Your task to perform on an android device: Go to ESPN.com Image 0: 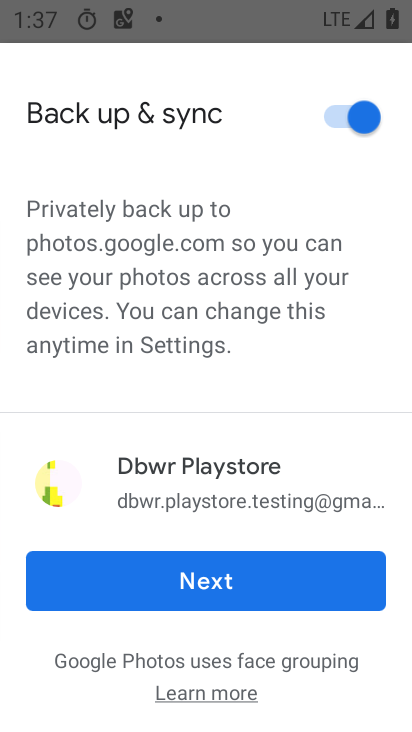
Step 0: press home button
Your task to perform on an android device: Go to ESPN.com Image 1: 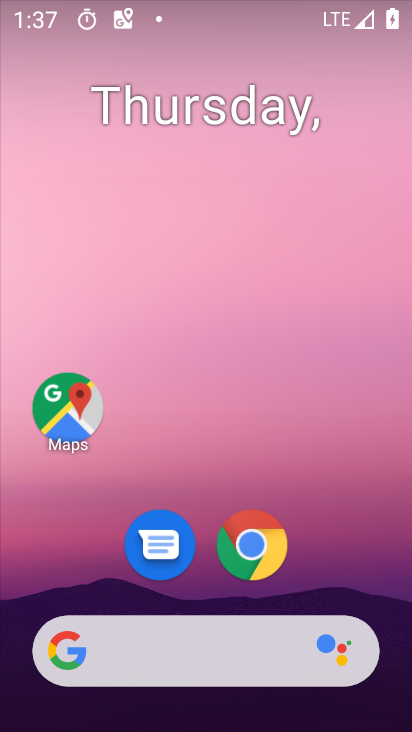
Step 1: drag from (281, 632) to (301, 64)
Your task to perform on an android device: Go to ESPN.com Image 2: 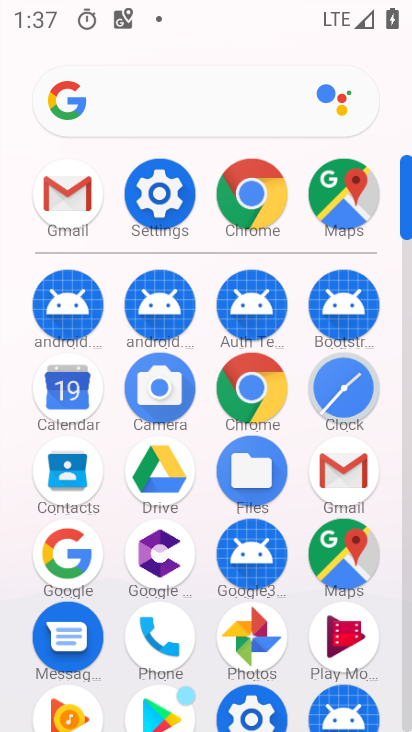
Step 2: click (265, 389)
Your task to perform on an android device: Go to ESPN.com Image 3: 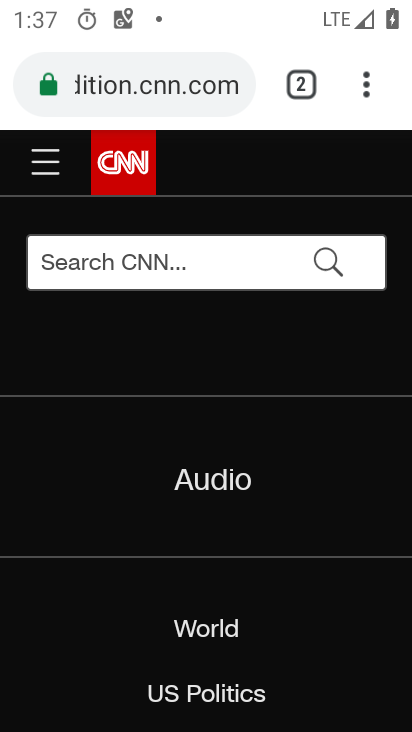
Step 3: click (198, 75)
Your task to perform on an android device: Go to ESPN.com Image 4: 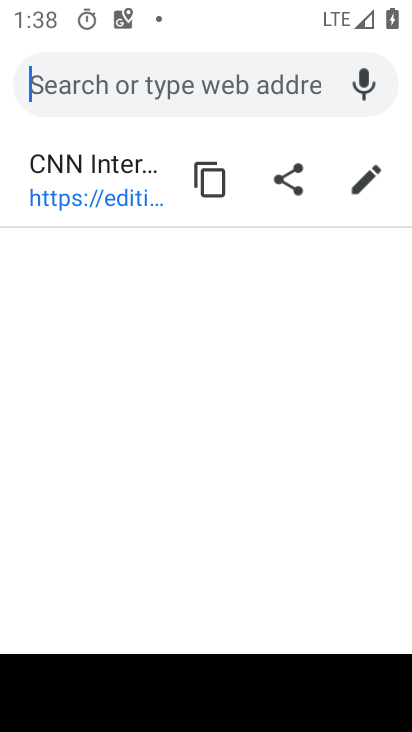
Step 4: type "espn.com"
Your task to perform on an android device: Go to ESPN.com Image 5: 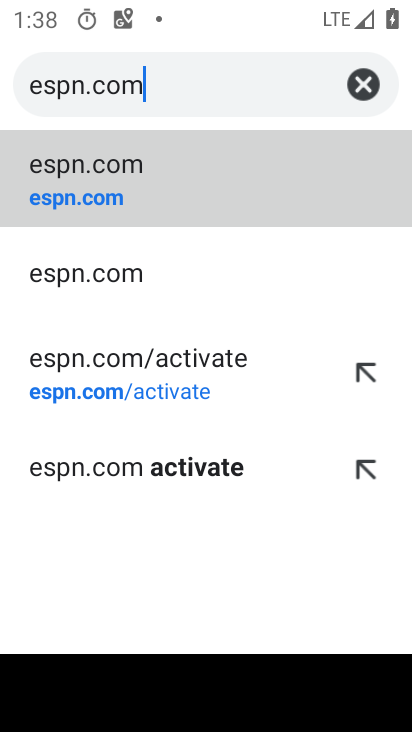
Step 5: click (137, 191)
Your task to perform on an android device: Go to ESPN.com Image 6: 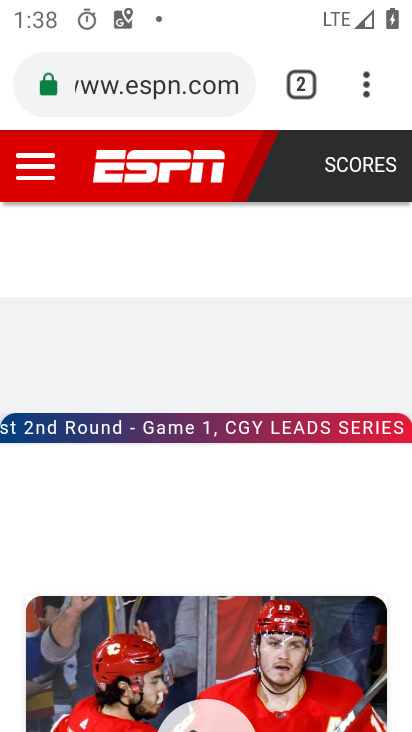
Step 6: task complete